Your task to perform on an android device: Open Google Chrome Image 0: 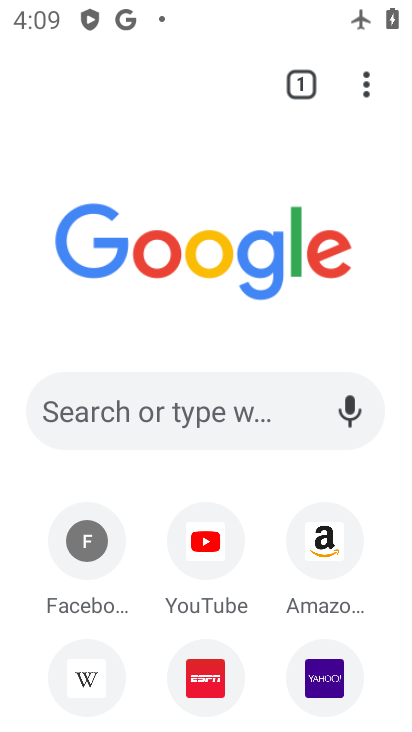
Step 0: press home button
Your task to perform on an android device: Open Google Chrome Image 1: 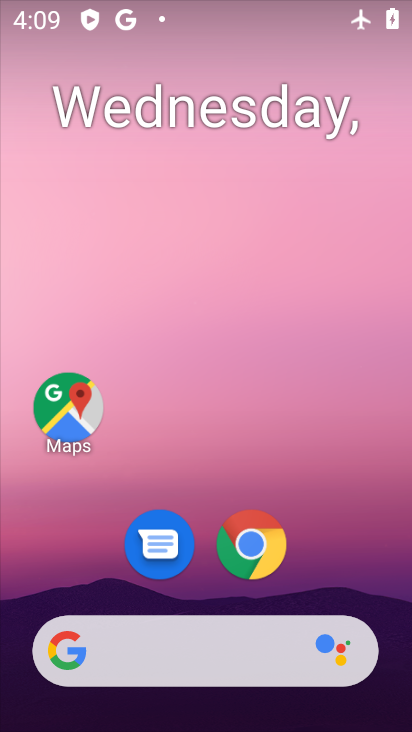
Step 1: drag from (373, 577) to (378, 272)
Your task to perform on an android device: Open Google Chrome Image 2: 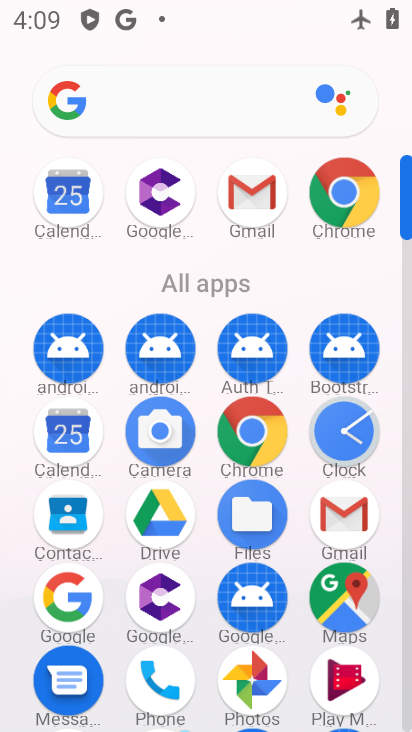
Step 2: click (248, 450)
Your task to perform on an android device: Open Google Chrome Image 3: 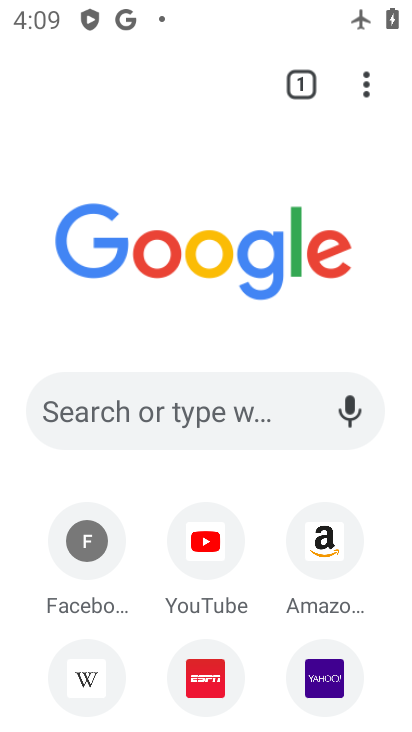
Step 3: task complete